Your task to perform on an android device: check data usage Image 0: 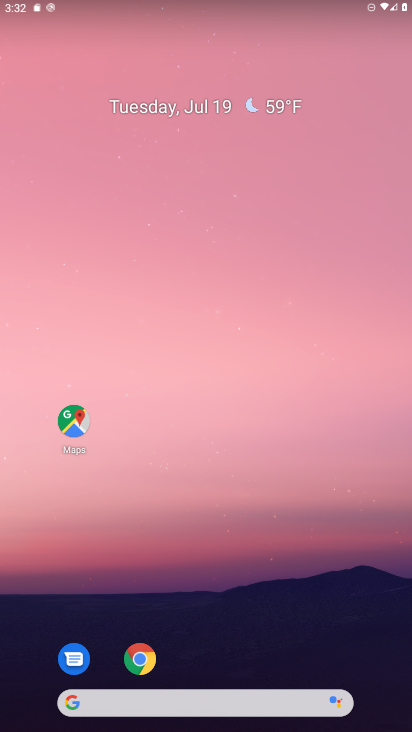
Step 0: drag from (221, 700) to (244, 237)
Your task to perform on an android device: check data usage Image 1: 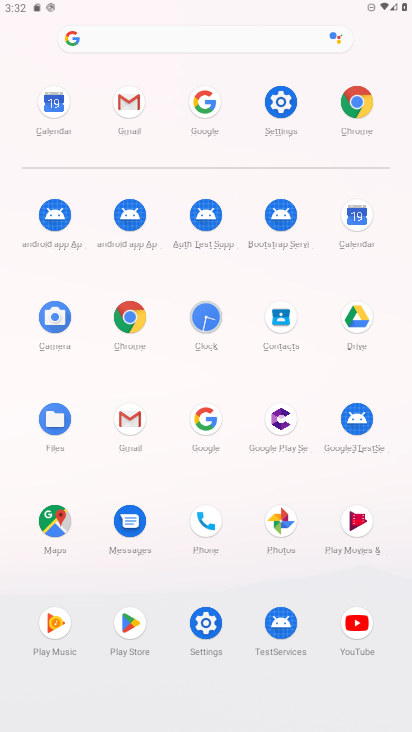
Step 1: click (208, 620)
Your task to perform on an android device: check data usage Image 2: 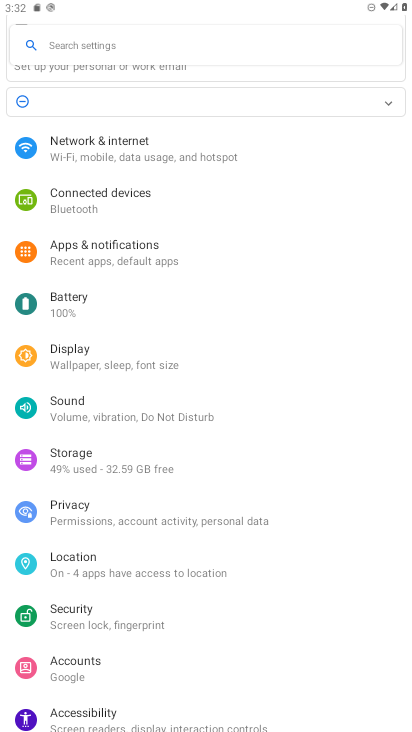
Step 2: click (104, 152)
Your task to perform on an android device: check data usage Image 3: 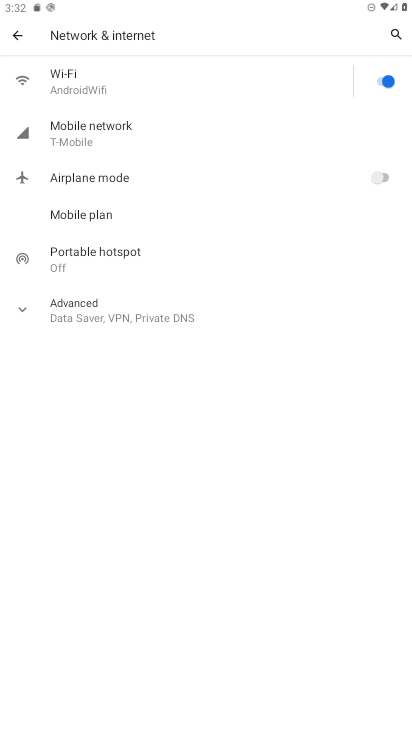
Step 3: click (84, 132)
Your task to perform on an android device: check data usage Image 4: 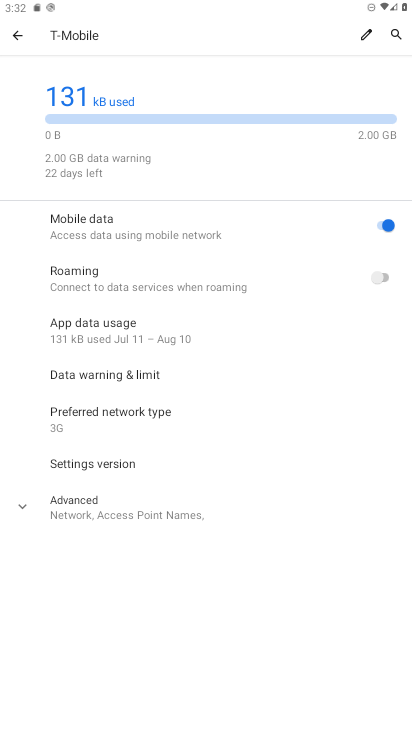
Step 4: task complete